Your task to perform on an android device: set the timer Image 0: 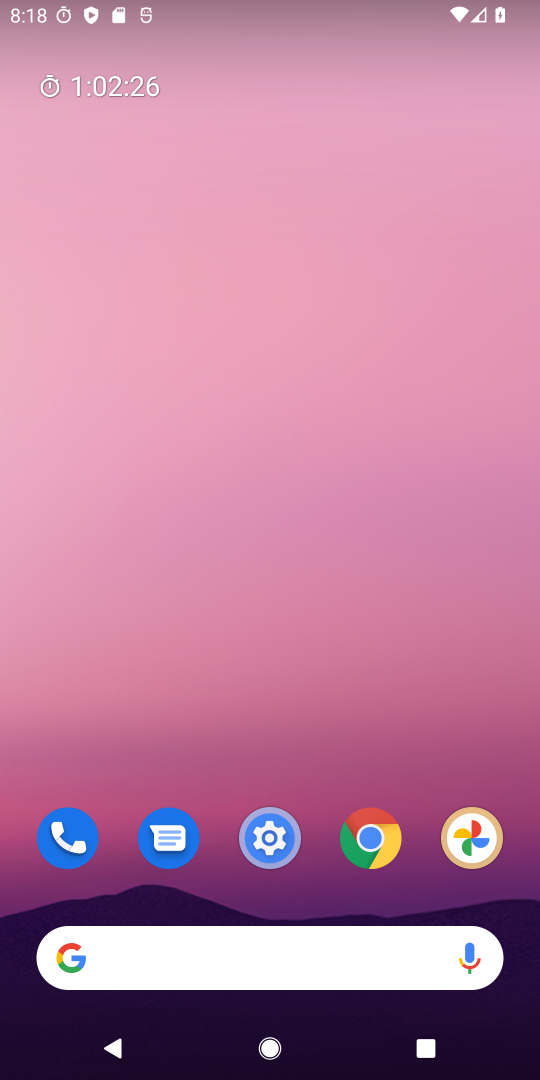
Step 0: drag from (286, 891) to (404, 174)
Your task to perform on an android device: set the timer Image 1: 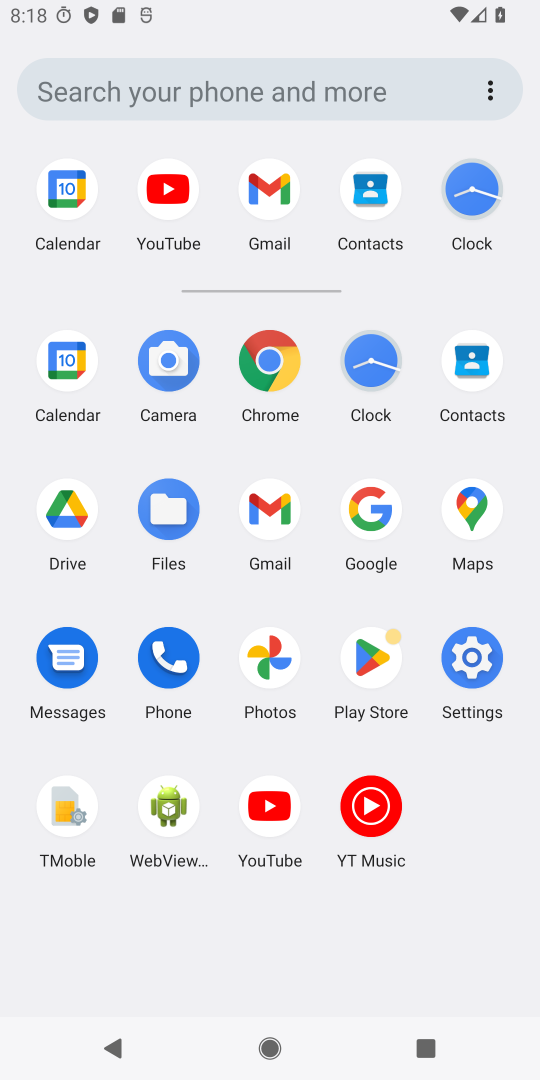
Step 1: click (388, 356)
Your task to perform on an android device: set the timer Image 2: 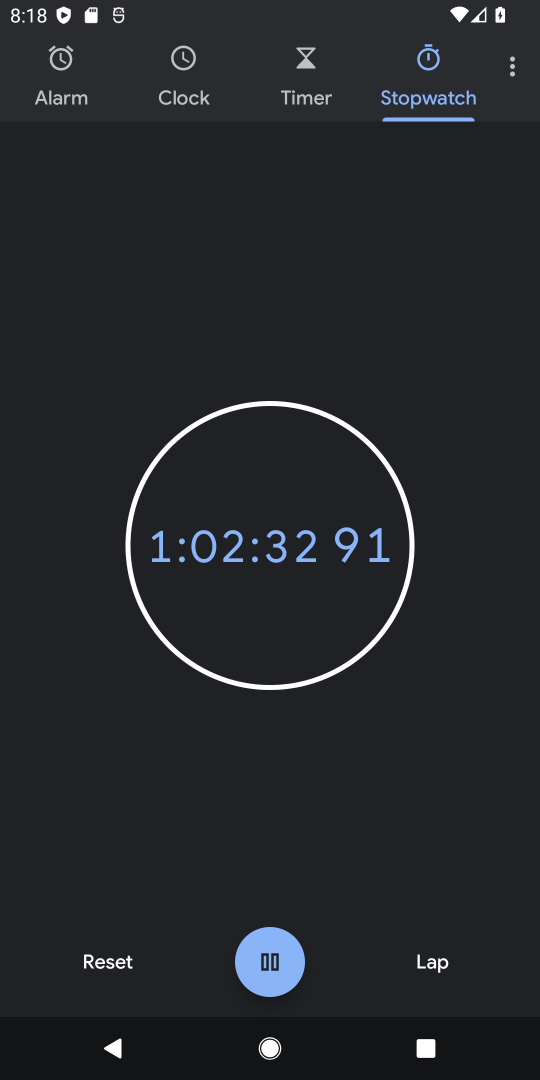
Step 2: click (320, 68)
Your task to perform on an android device: set the timer Image 3: 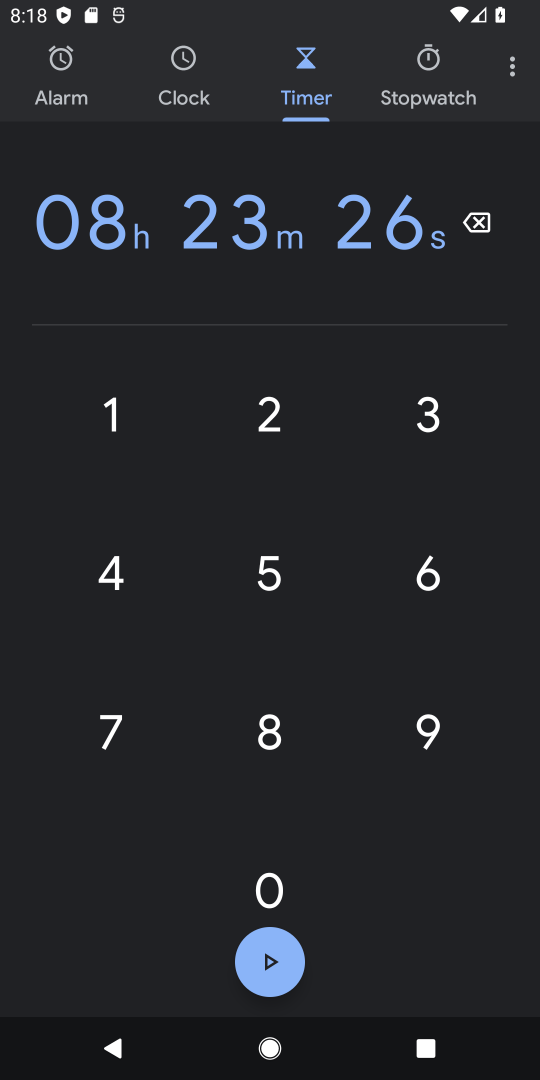
Step 3: click (246, 736)
Your task to perform on an android device: set the timer Image 4: 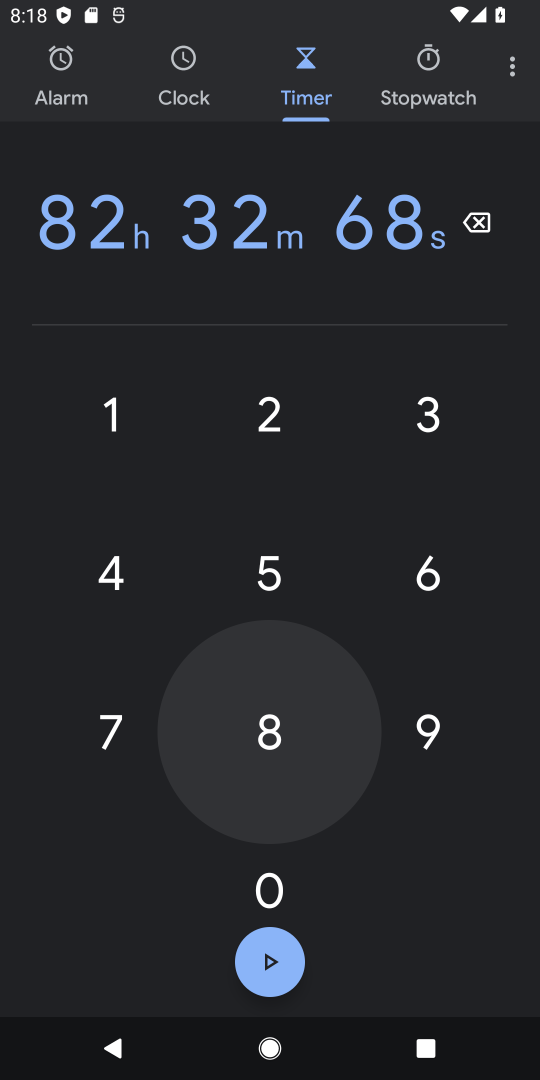
Step 4: click (273, 936)
Your task to perform on an android device: set the timer Image 5: 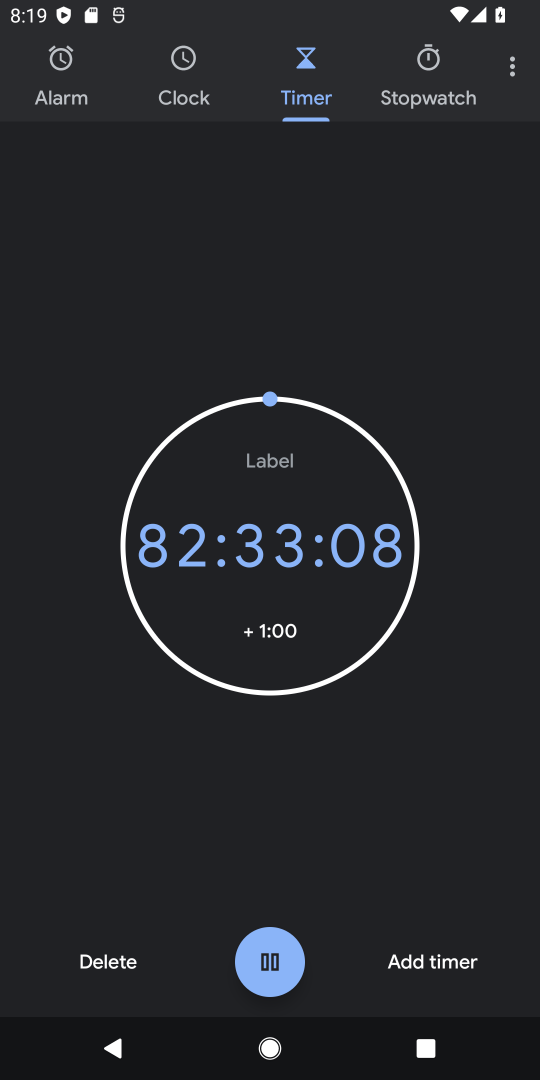
Step 5: task complete